Your task to perform on an android device: add a label to a message in the gmail app Image 0: 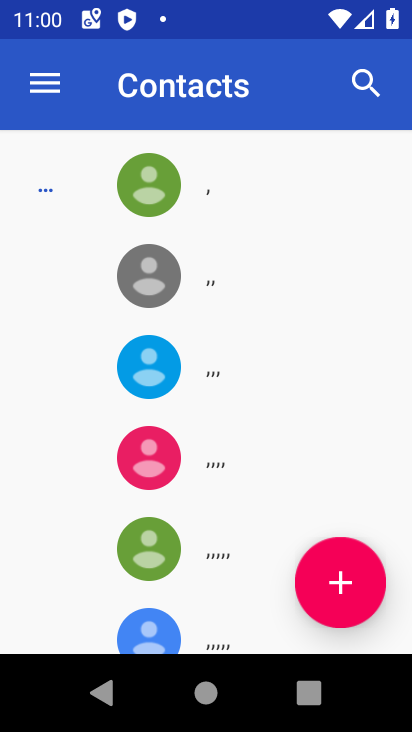
Step 0: press home button
Your task to perform on an android device: add a label to a message in the gmail app Image 1: 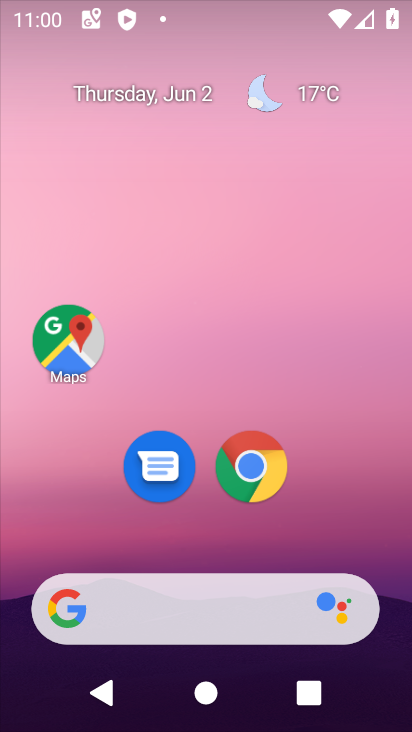
Step 1: drag from (218, 637) to (244, 294)
Your task to perform on an android device: add a label to a message in the gmail app Image 2: 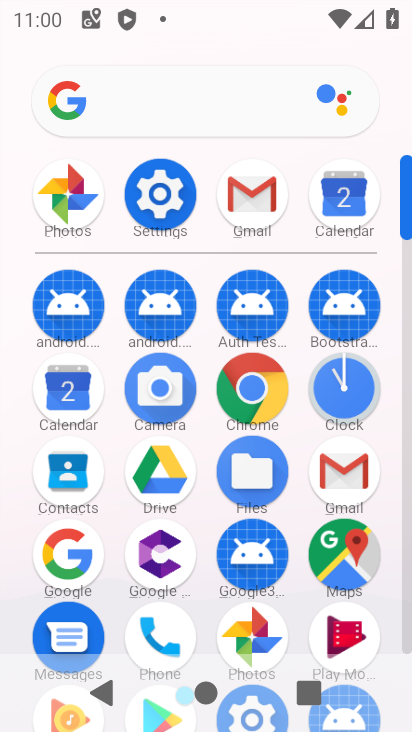
Step 2: click (253, 201)
Your task to perform on an android device: add a label to a message in the gmail app Image 3: 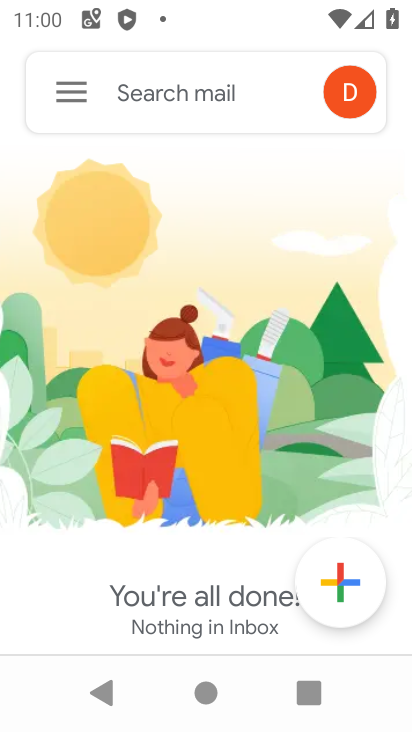
Step 3: click (81, 107)
Your task to perform on an android device: add a label to a message in the gmail app Image 4: 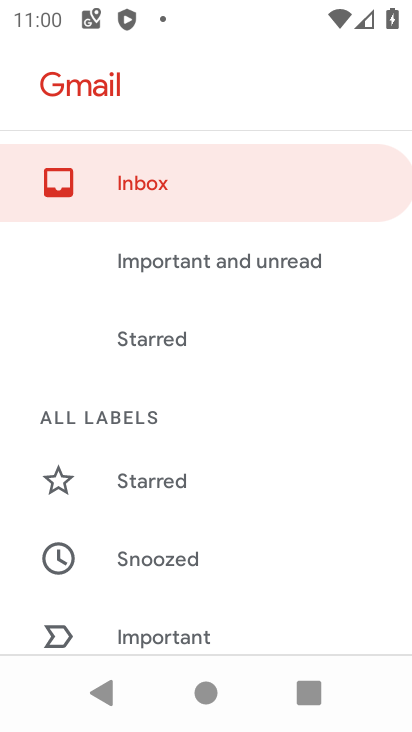
Step 4: drag from (121, 610) to (190, 241)
Your task to perform on an android device: add a label to a message in the gmail app Image 5: 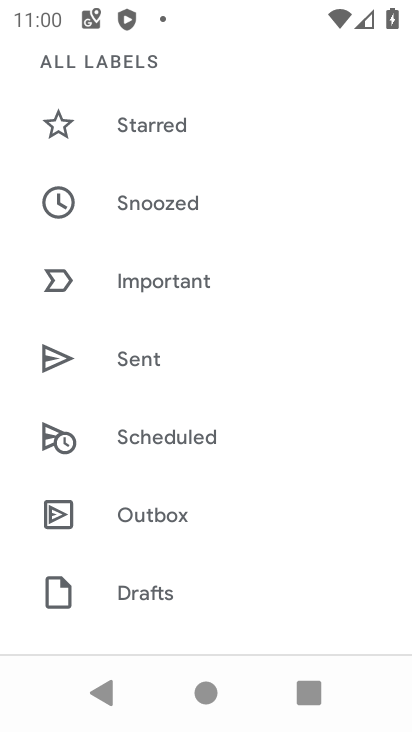
Step 5: drag from (65, 558) to (166, 239)
Your task to perform on an android device: add a label to a message in the gmail app Image 6: 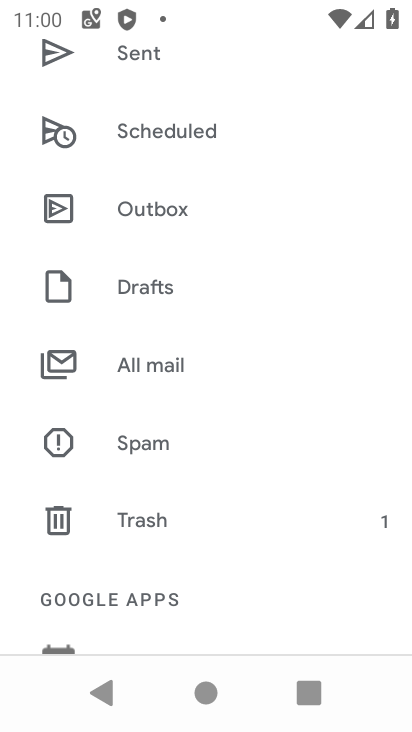
Step 6: click (107, 355)
Your task to perform on an android device: add a label to a message in the gmail app Image 7: 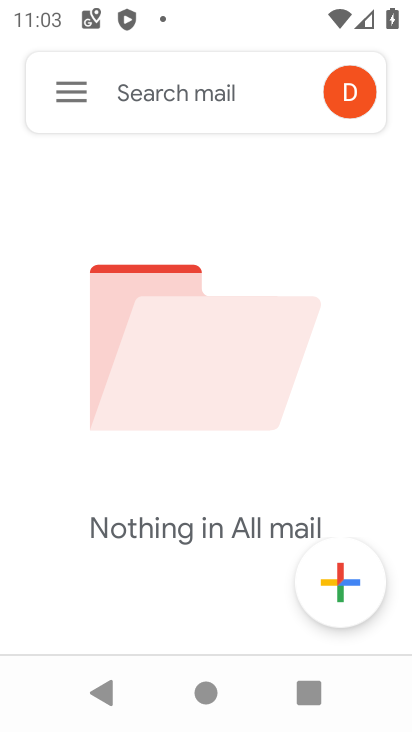
Step 7: task complete